Your task to perform on an android device: change the clock display to analog Image 0: 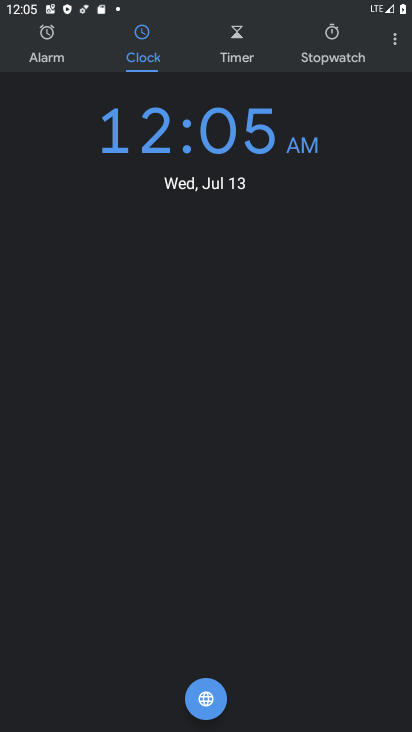
Step 0: press home button
Your task to perform on an android device: change the clock display to analog Image 1: 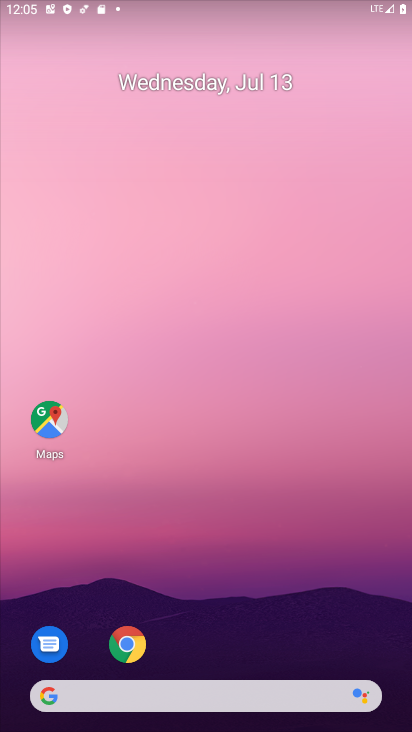
Step 1: drag from (186, 660) to (230, 182)
Your task to perform on an android device: change the clock display to analog Image 2: 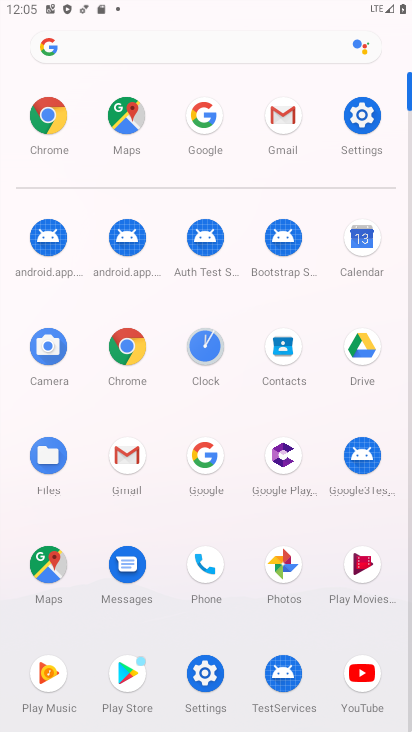
Step 2: click (203, 359)
Your task to perform on an android device: change the clock display to analog Image 3: 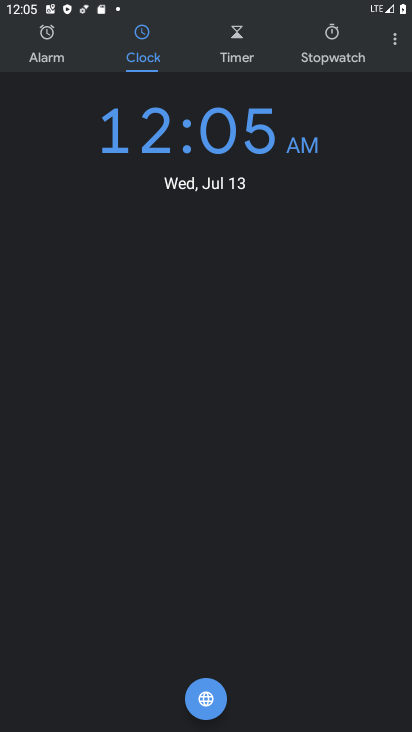
Step 3: click (384, 47)
Your task to perform on an android device: change the clock display to analog Image 4: 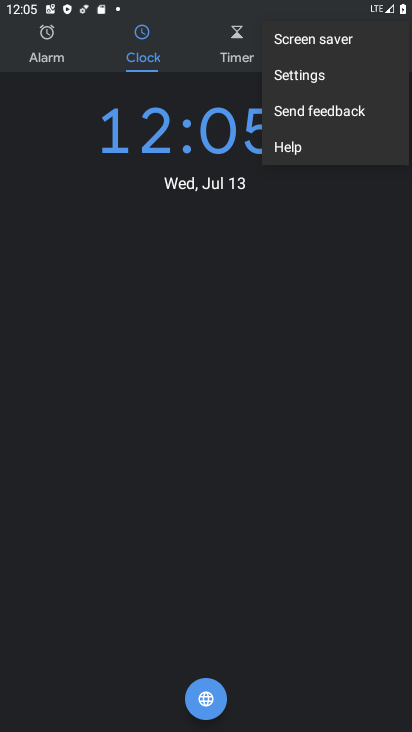
Step 4: click (311, 78)
Your task to perform on an android device: change the clock display to analog Image 5: 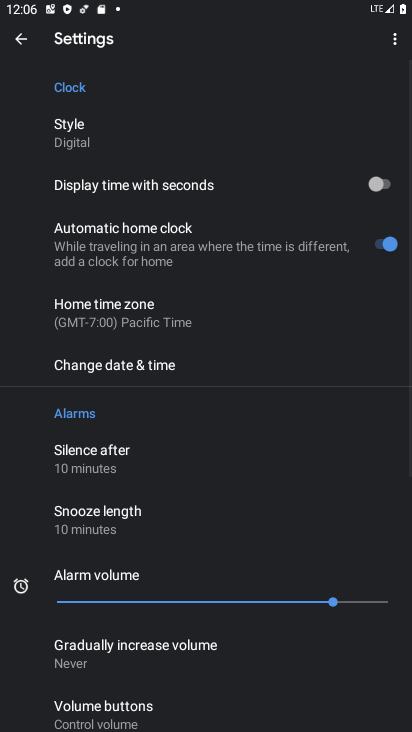
Step 5: click (153, 138)
Your task to perform on an android device: change the clock display to analog Image 6: 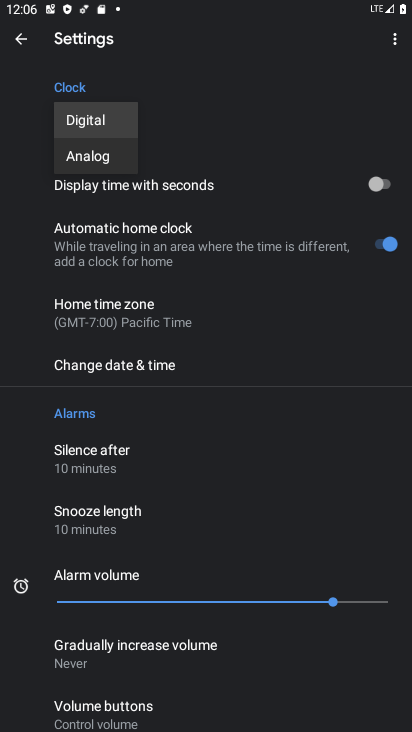
Step 6: click (77, 160)
Your task to perform on an android device: change the clock display to analog Image 7: 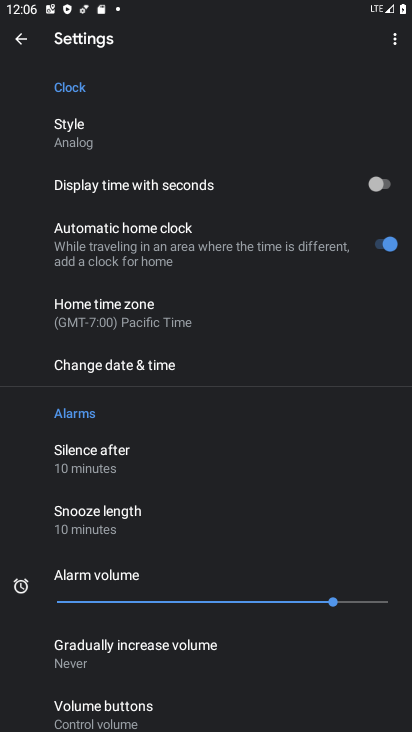
Step 7: task complete